Your task to perform on an android device: set the timer Image 0: 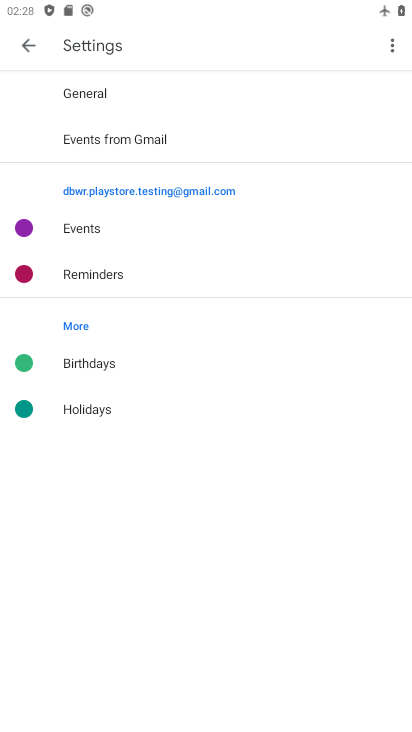
Step 0: press home button
Your task to perform on an android device: set the timer Image 1: 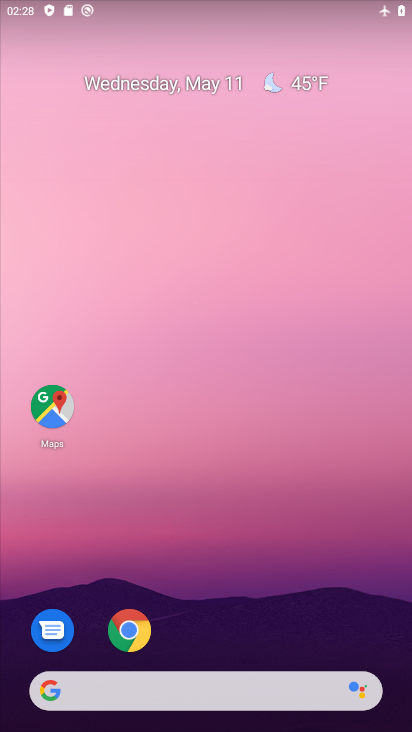
Step 1: drag from (226, 722) to (222, 99)
Your task to perform on an android device: set the timer Image 2: 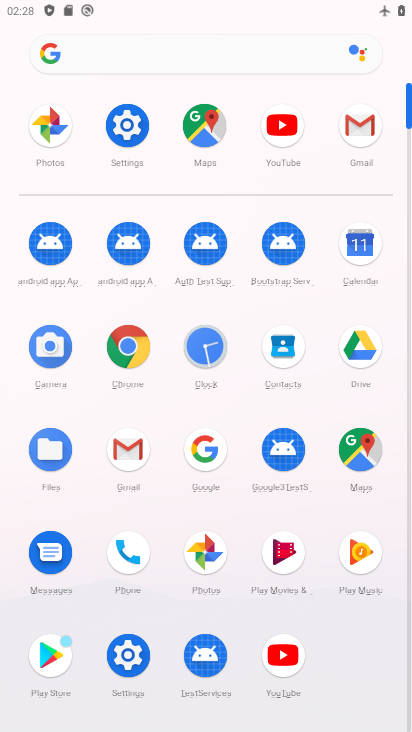
Step 2: click (205, 345)
Your task to perform on an android device: set the timer Image 3: 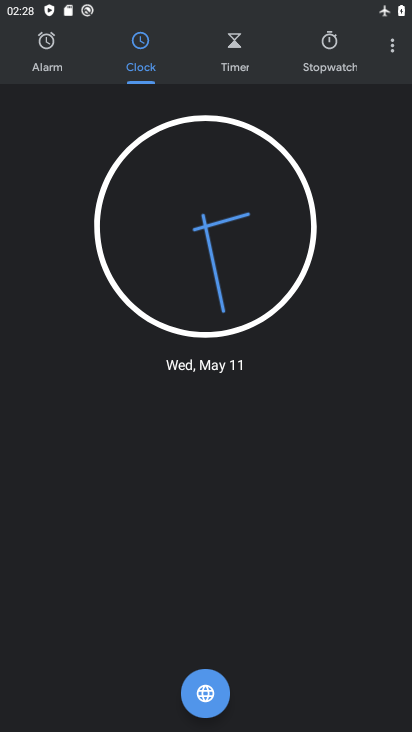
Step 3: click (234, 39)
Your task to perform on an android device: set the timer Image 4: 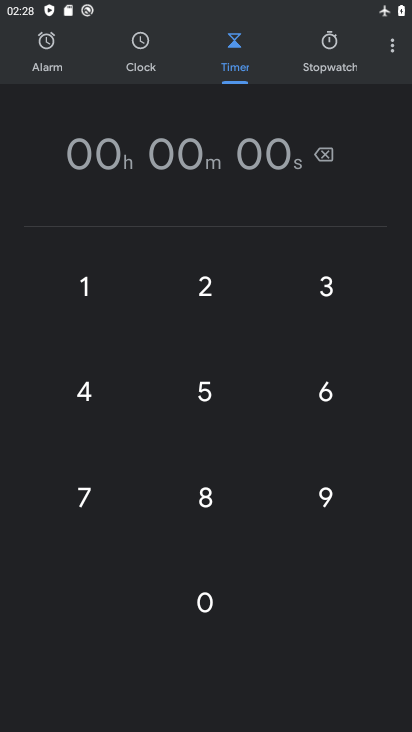
Step 4: click (214, 284)
Your task to perform on an android device: set the timer Image 5: 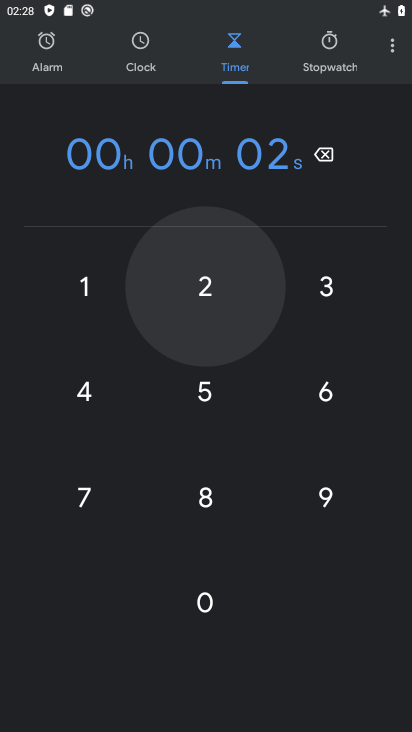
Step 5: click (211, 385)
Your task to perform on an android device: set the timer Image 6: 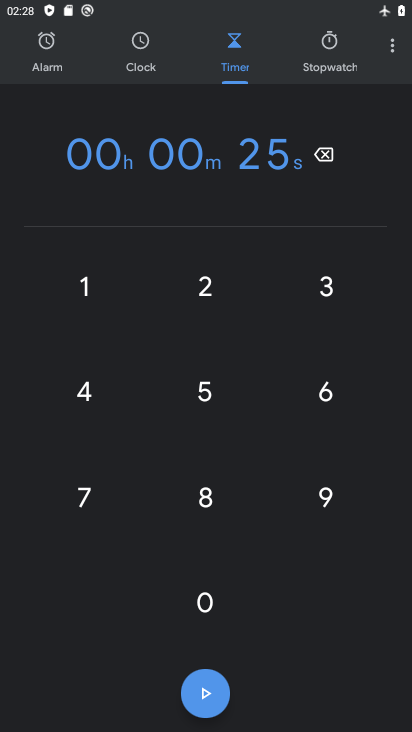
Step 6: click (100, 388)
Your task to perform on an android device: set the timer Image 7: 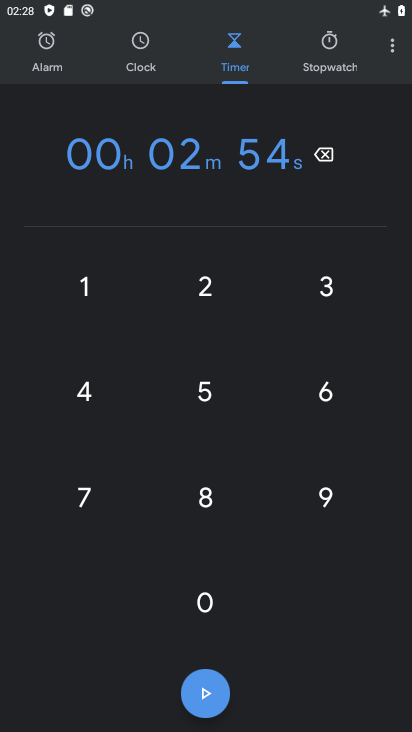
Step 7: click (83, 480)
Your task to perform on an android device: set the timer Image 8: 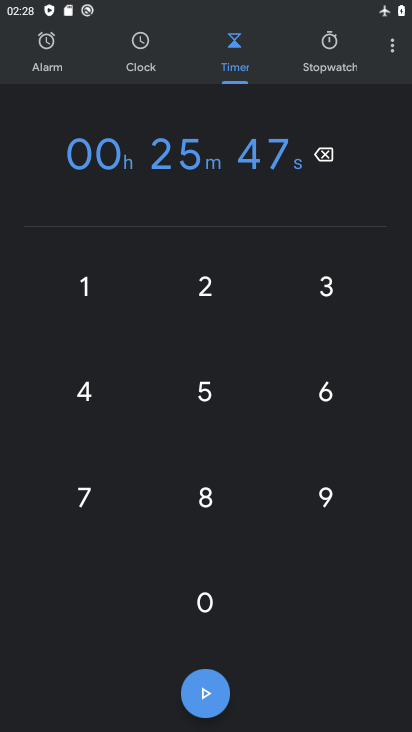
Step 8: click (199, 489)
Your task to perform on an android device: set the timer Image 9: 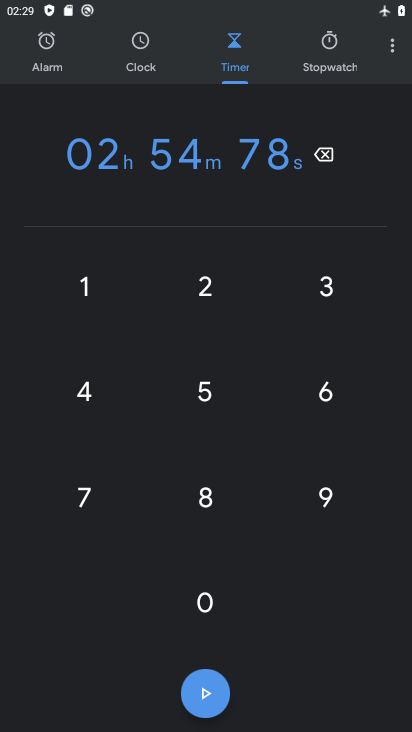
Step 9: click (321, 486)
Your task to perform on an android device: set the timer Image 10: 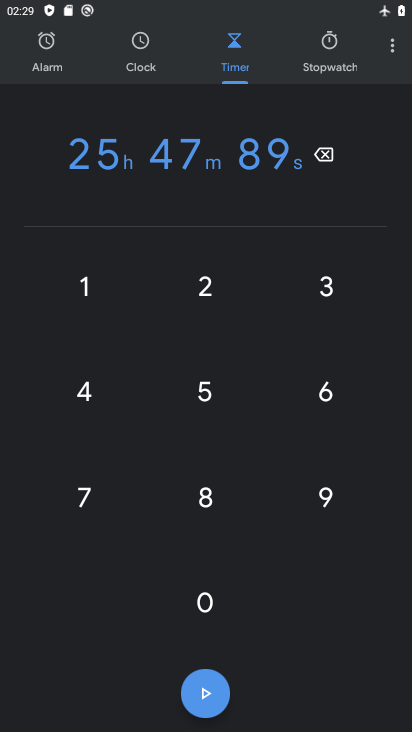
Step 10: click (205, 694)
Your task to perform on an android device: set the timer Image 11: 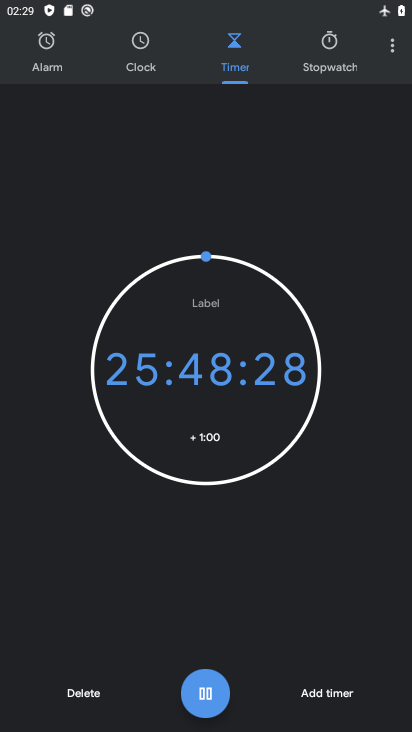
Step 11: task complete